Your task to perform on an android device: Open notification settings Image 0: 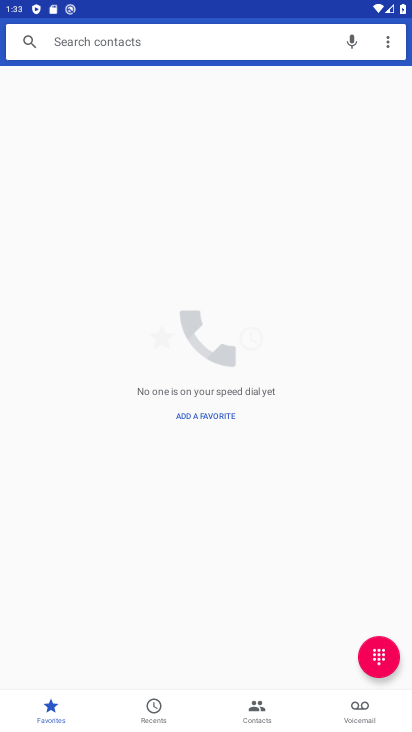
Step 0: press home button
Your task to perform on an android device: Open notification settings Image 1: 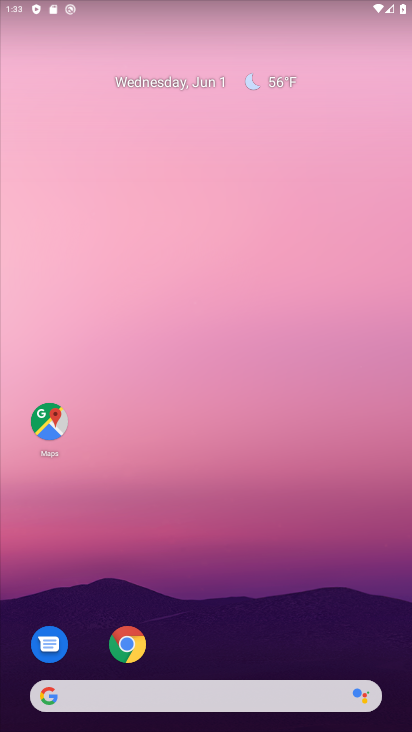
Step 1: drag from (195, 679) to (200, 424)
Your task to perform on an android device: Open notification settings Image 2: 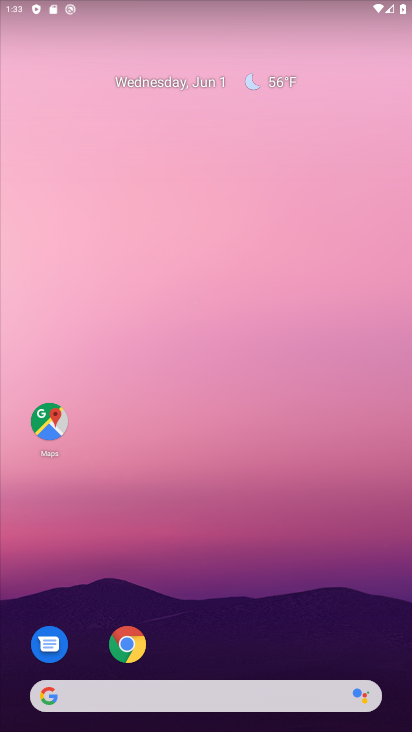
Step 2: drag from (251, 680) to (246, 229)
Your task to perform on an android device: Open notification settings Image 3: 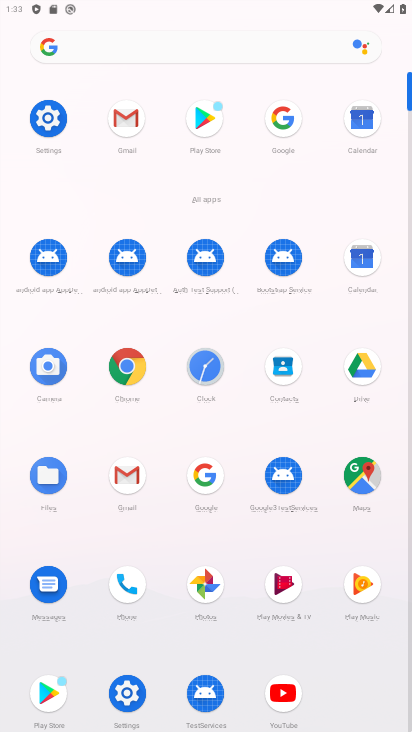
Step 3: click (47, 121)
Your task to perform on an android device: Open notification settings Image 4: 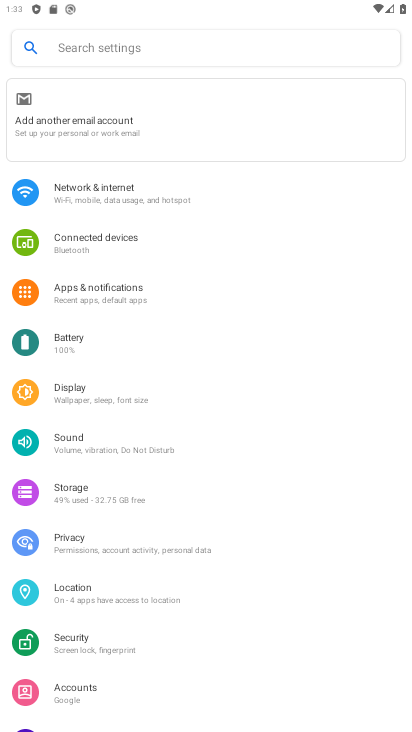
Step 4: click (118, 290)
Your task to perform on an android device: Open notification settings Image 5: 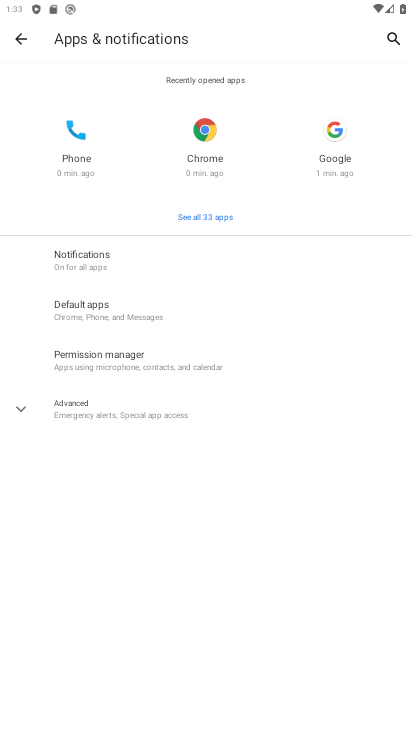
Step 5: click (116, 416)
Your task to perform on an android device: Open notification settings Image 6: 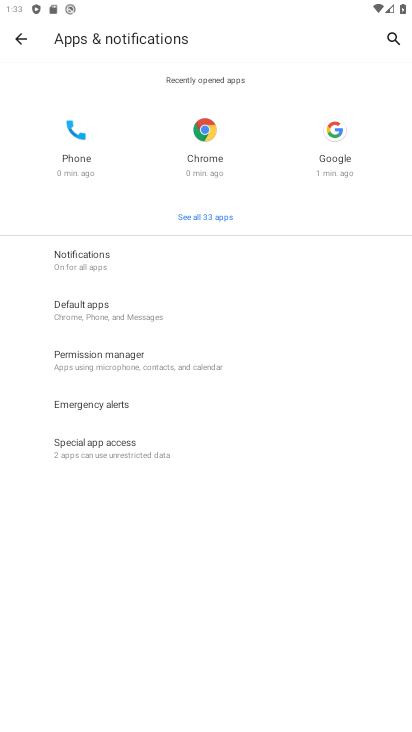
Step 6: task complete